Your task to perform on an android device: Search for "logitech g pro" on walmart.com, select the first entry, and add it to the cart. Image 0: 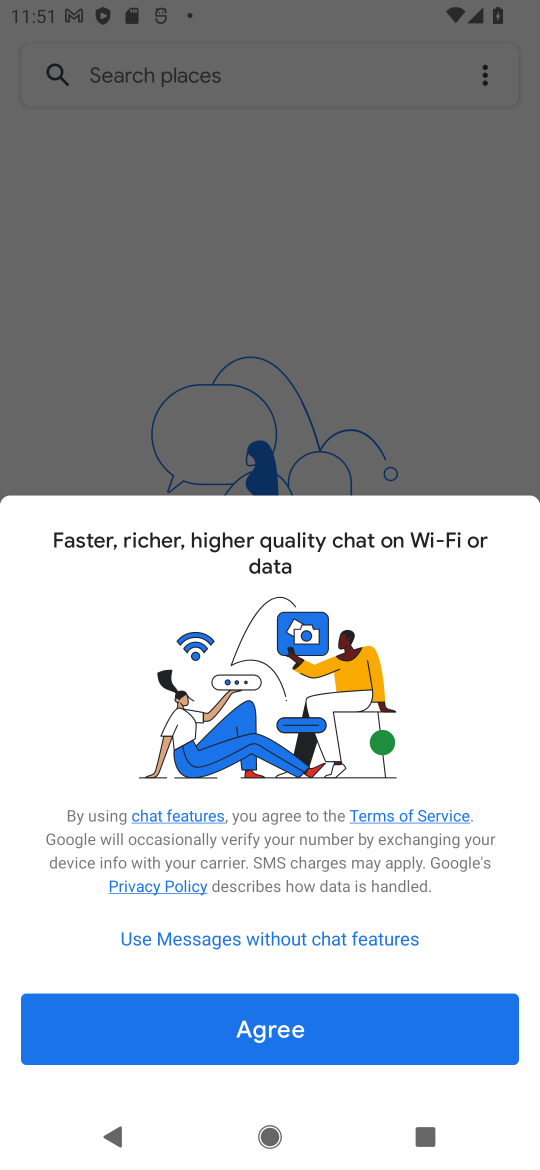
Step 0: press home button
Your task to perform on an android device: Search for "logitech g pro" on walmart.com, select the first entry, and add it to the cart. Image 1: 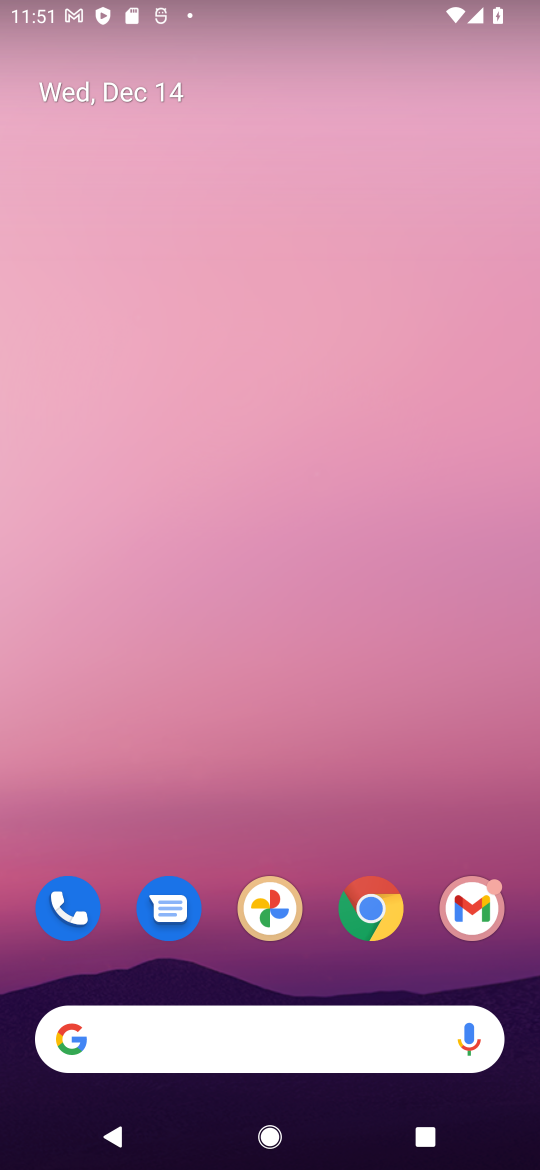
Step 1: click (391, 925)
Your task to perform on an android device: Search for "logitech g pro" on walmart.com, select the first entry, and add it to the cart. Image 2: 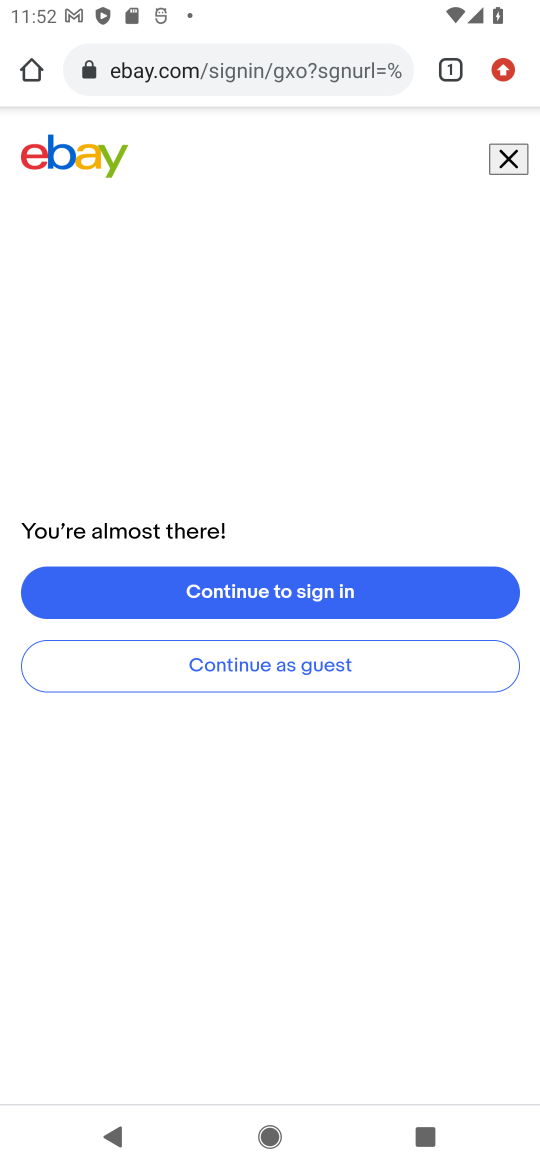
Step 2: click (203, 73)
Your task to perform on an android device: Search for "logitech g pro" on walmart.com, select the first entry, and add it to the cart. Image 3: 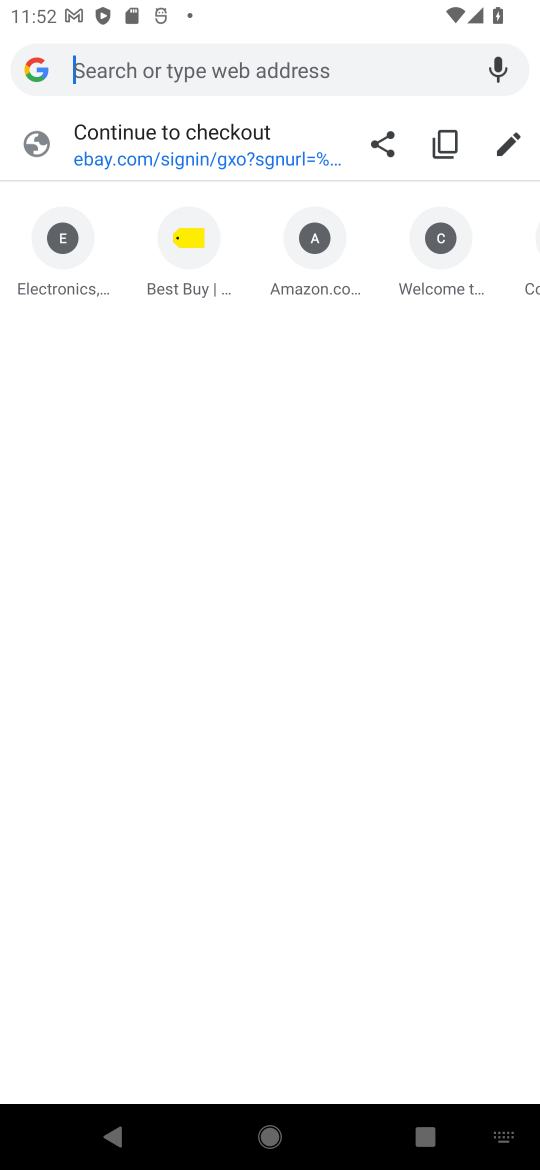
Step 3: type "walmart.com"
Your task to perform on an android device: Search for "logitech g pro" on walmart.com, select the first entry, and add it to the cart. Image 4: 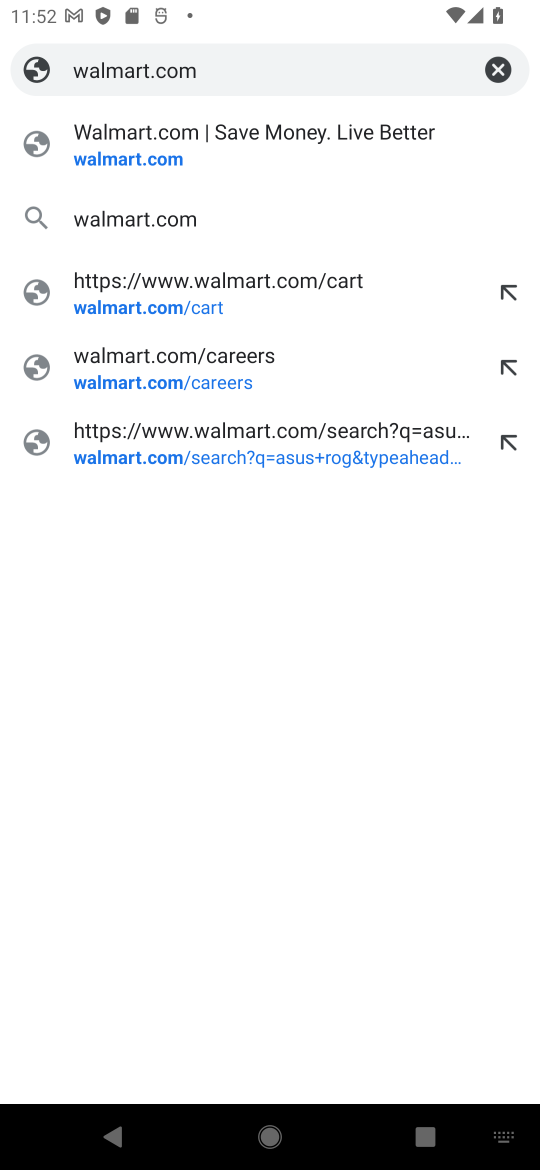
Step 4: click (121, 161)
Your task to perform on an android device: Search for "logitech g pro" on walmart.com, select the first entry, and add it to the cart. Image 5: 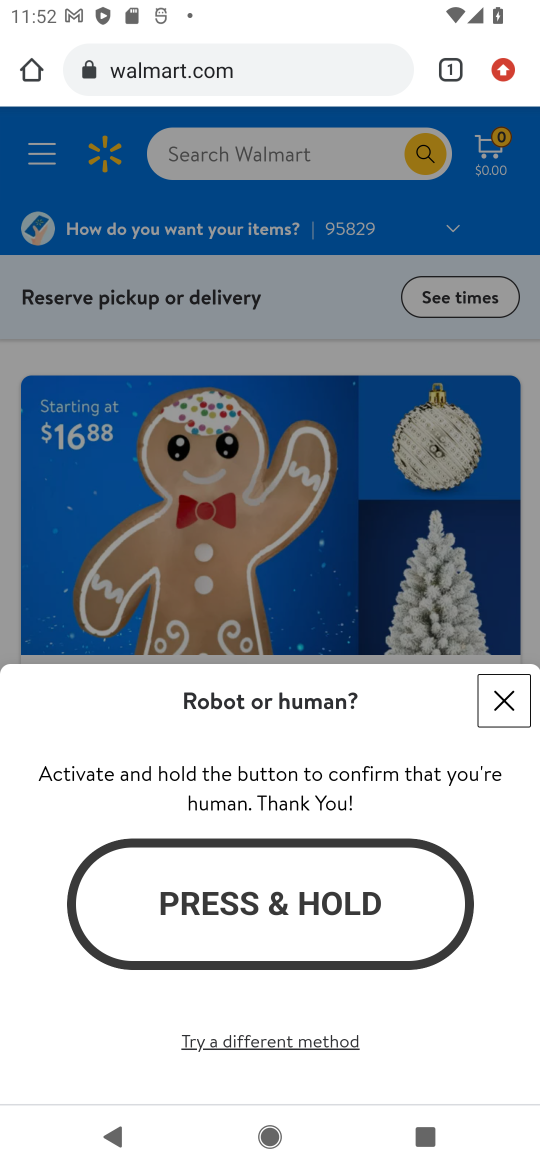
Step 5: click (314, 918)
Your task to perform on an android device: Search for "logitech g pro" on walmart.com, select the first entry, and add it to the cart. Image 6: 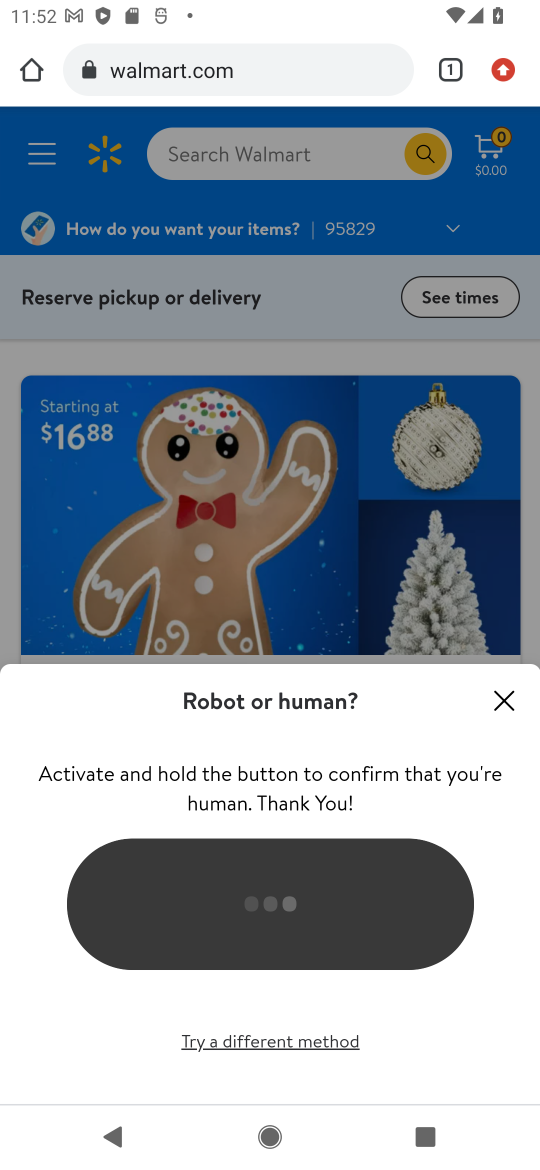
Step 6: click (272, 923)
Your task to perform on an android device: Search for "logitech g pro" on walmart.com, select the first entry, and add it to the cart. Image 7: 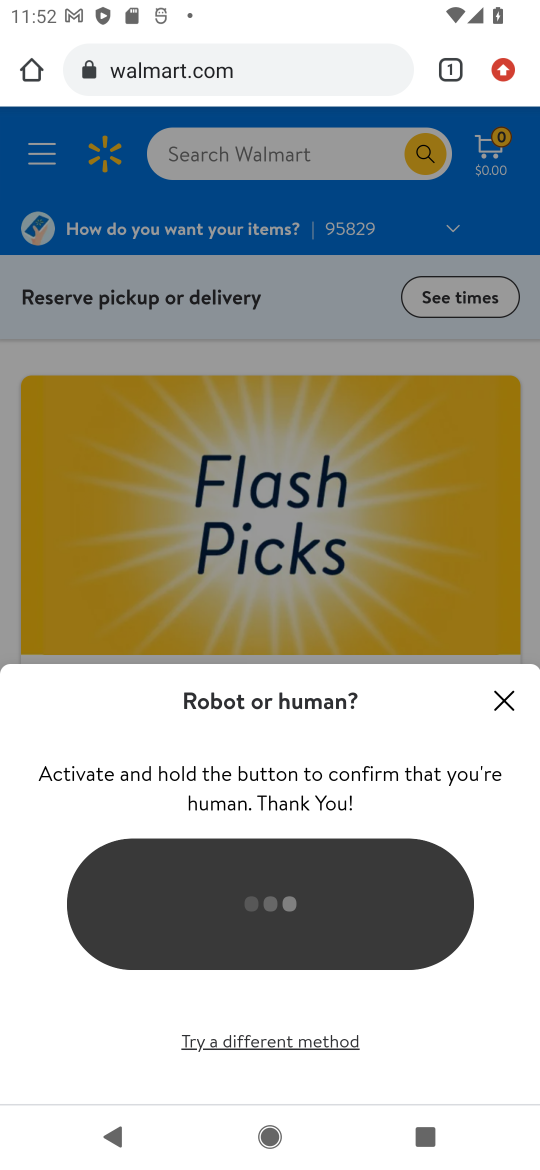
Step 7: click (234, 157)
Your task to perform on an android device: Search for "logitech g pro" on walmart.com, select the first entry, and add it to the cart. Image 8: 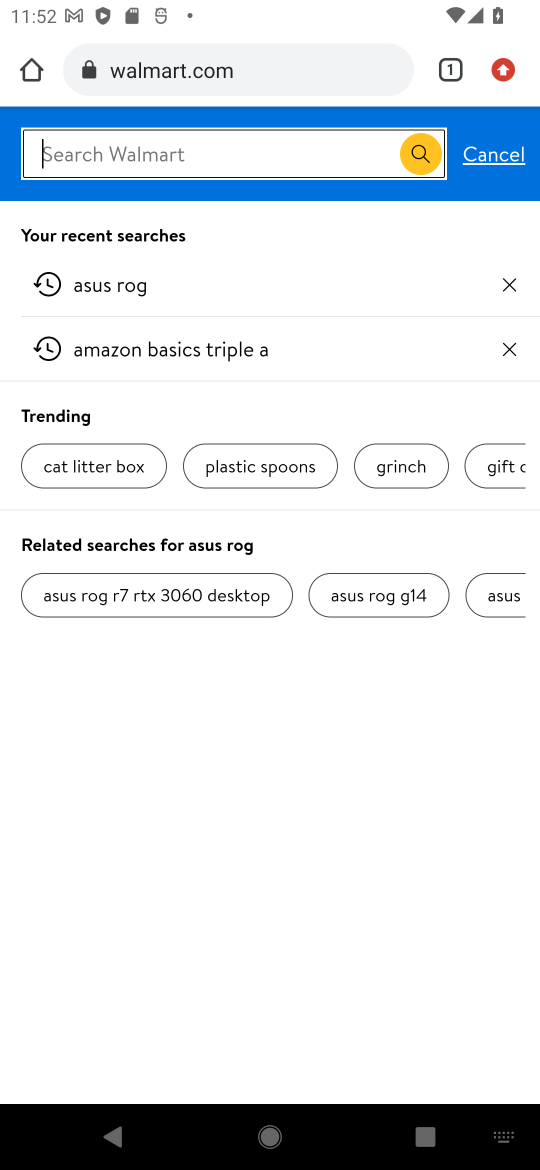
Step 8: type "logitech g pro"
Your task to perform on an android device: Search for "logitech g pro" on walmart.com, select the first entry, and add it to the cart. Image 9: 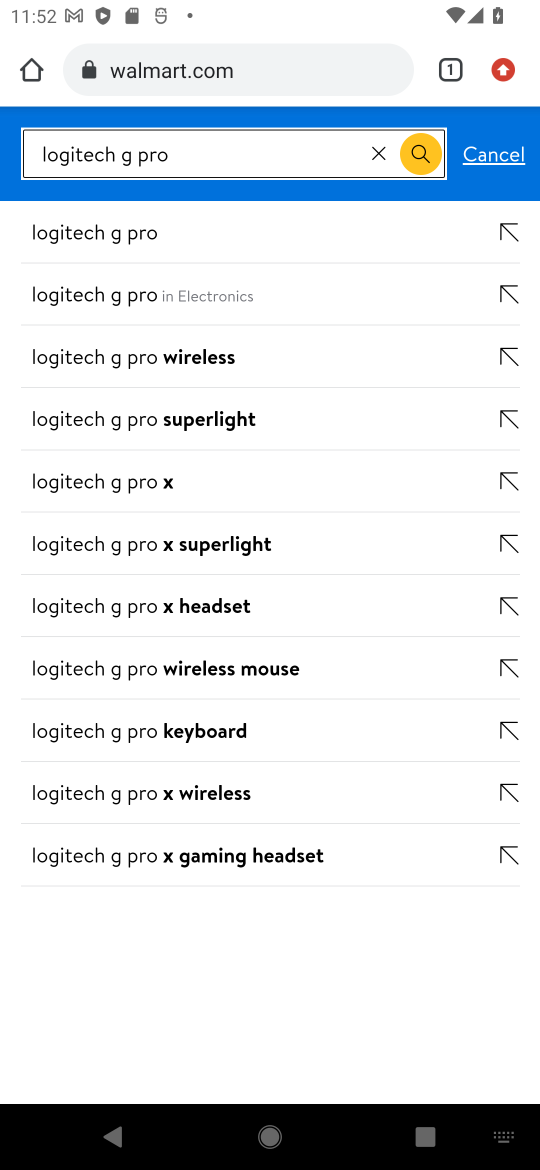
Step 9: click (127, 237)
Your task to perform on an android device: Search for "logitech g pro" on walmart.com, select the first entry, and add it to the cart. Image 10: 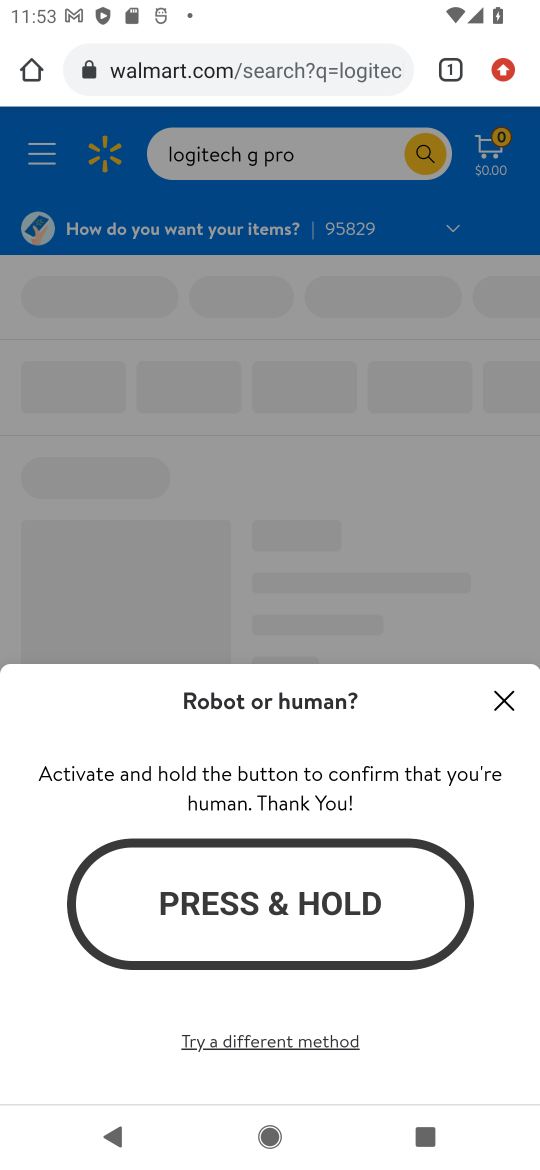
Step 10: click (279, 904)
Your task to perform on an android device: Search for "logitech g pro" on walmart.com, select the first entry, and add it to the cart. Image 11: 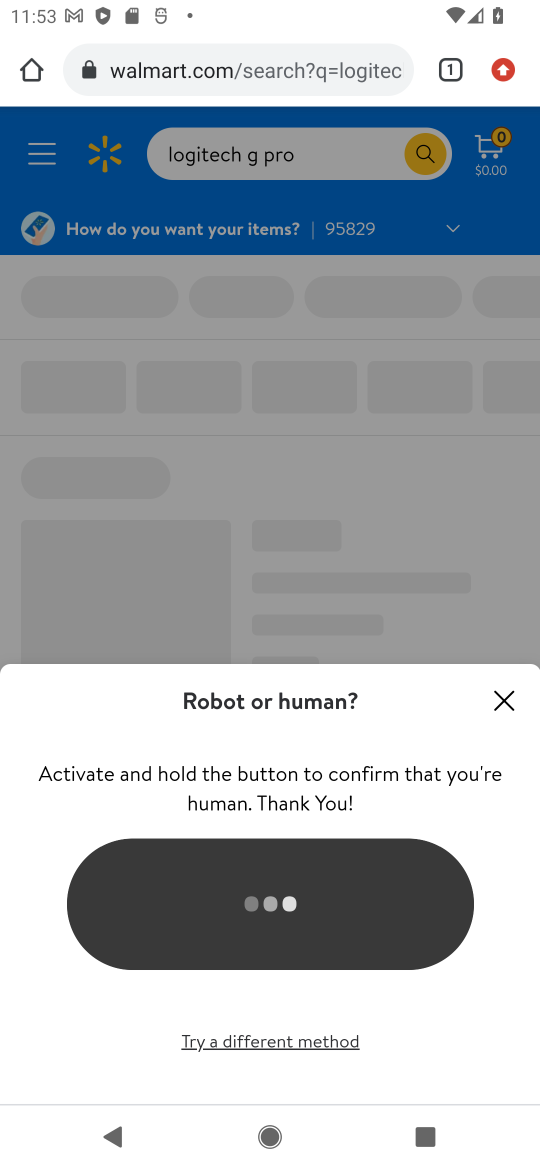
Step 11: click (418, 163)
Your task to perform on an android device: Search for "logitech g pro" on walmart.com, select the first entry, and add it to the cart. Image 12: 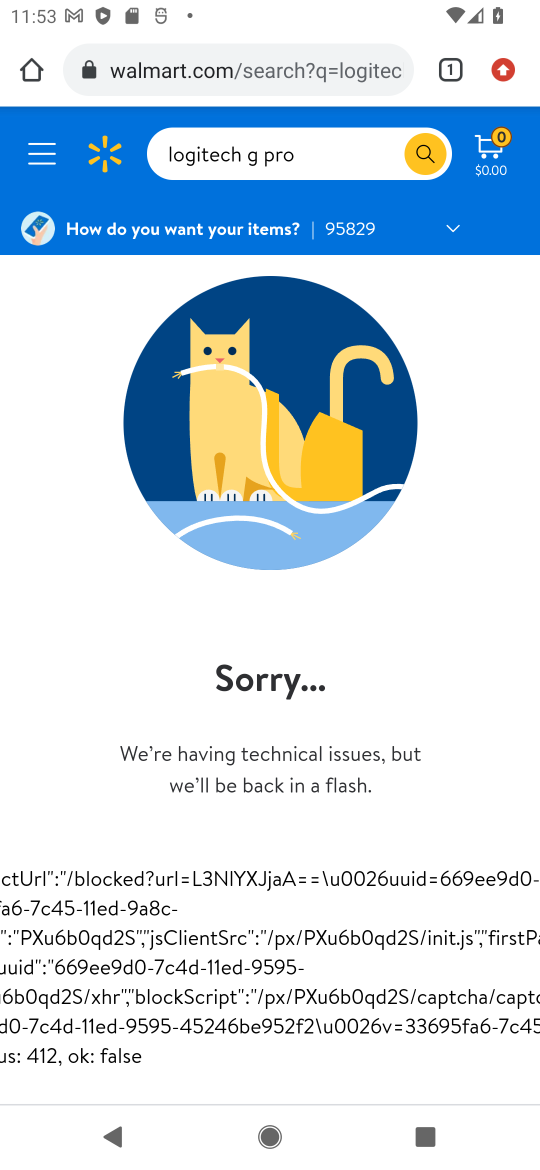
Step 12: task complete